Your task to perform on an android device: turn off airplane mode Image 0: 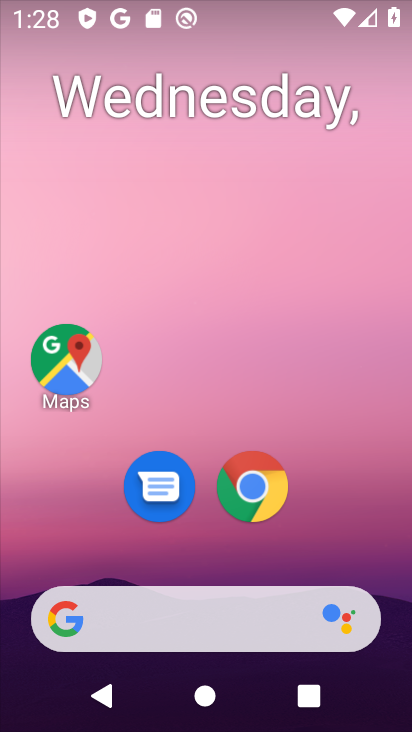
Step 0: drag from (153, 5) to (248, 724)
Your task to perform on an android device: turn off airplane mode Image 1: 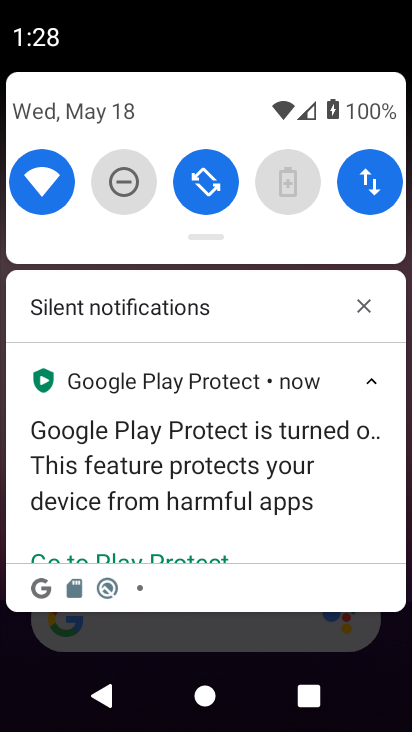
Step 1: task complete